Your task to perform on an android device: Open the web browser Image 0: 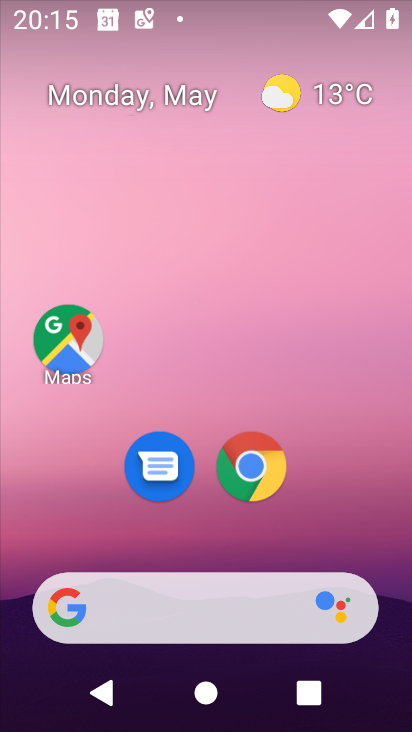
Step 0: drag from (335, 493) to (317, 281)
Your task to perform on an android device: Open the web browser Image 1: 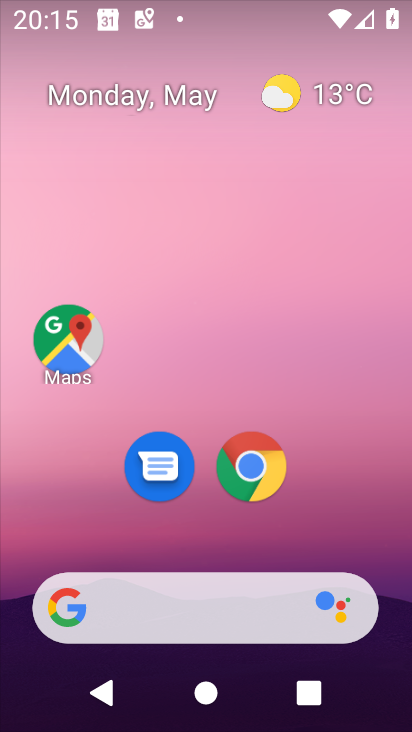
Step 1: drag from (281, 528) to (314, 260)
Your task to perform on an android device: Open the web browser Image 2: 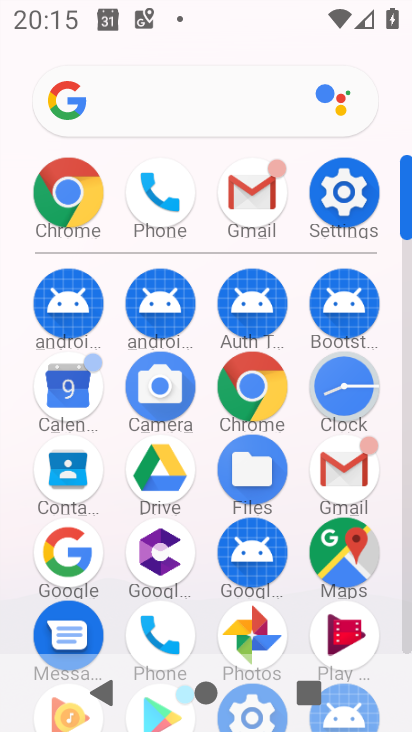
Step 2: click (257, 381)
Your task to perform on an android device: Open the web browser Image 3: 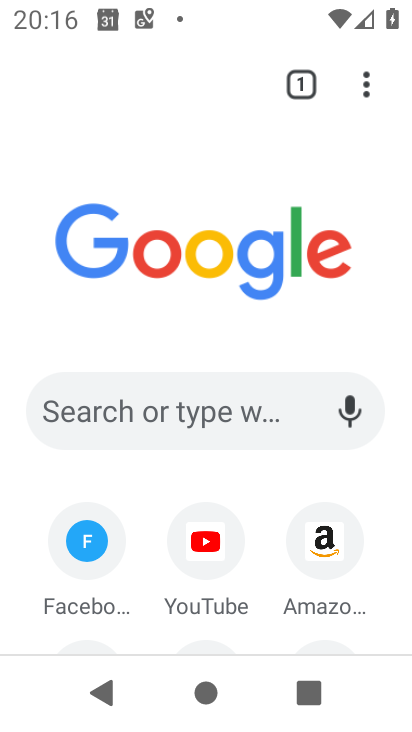
Step 3: task complete